Your task to perform on an android device: Open Google Chrome and click the shortcut for Amazon.com Image 0: 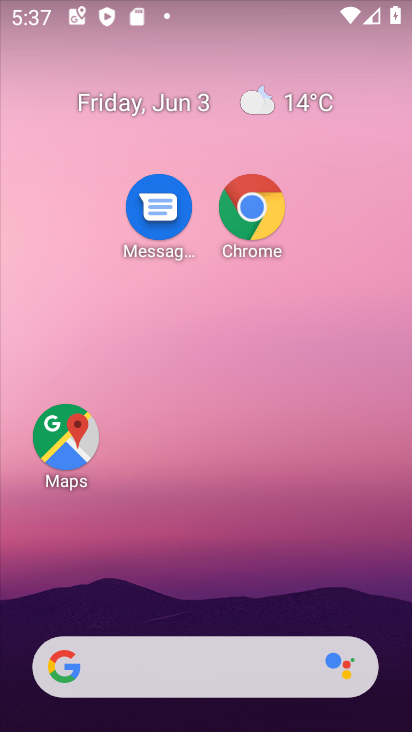
Step 0: click (253, 223)
Your task to perform on an android device: Open Google Chrome and click the shortcut for Amazon.com Image 1: 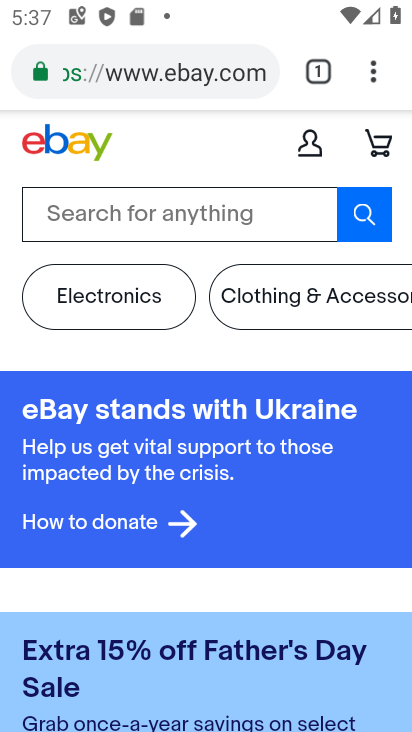
Step 1: press back button
Your task to perform on an android device: Open Google Chrome and click the shortcut for Amazon.com Image 2: 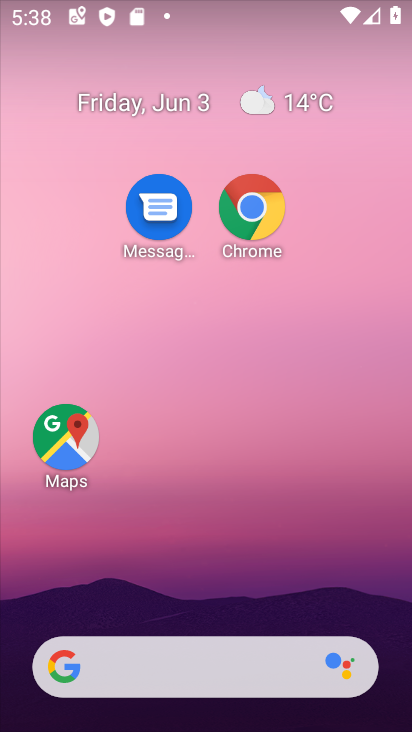
Step 2: click (255, 218)
Your task to perform on an android device: Open Google Chrome and click the shortcut for Amazon.com Image 3: 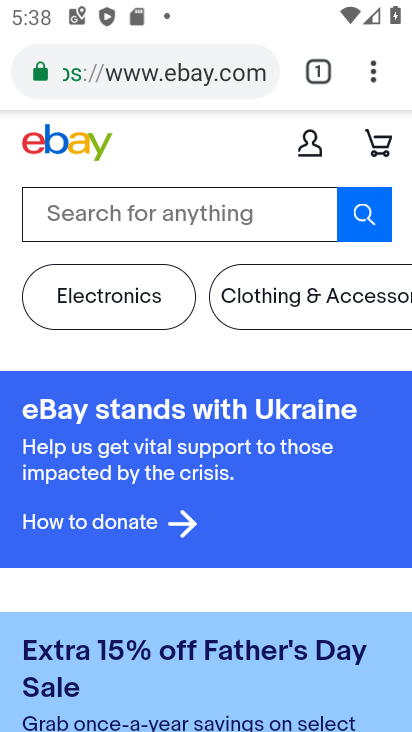
Step 3: click (327, 81)
Your task to perform on an android device: Open Google Chrome and click the shortcut for Amazon.com Image 4: 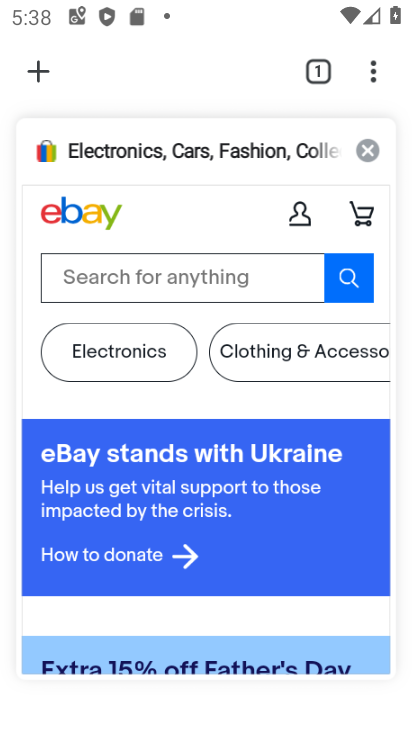
Step 4: click (38, 79)
Your task to perform on an android device: Open Google Chrome and click the shortcut for Amazon.com Image 5: 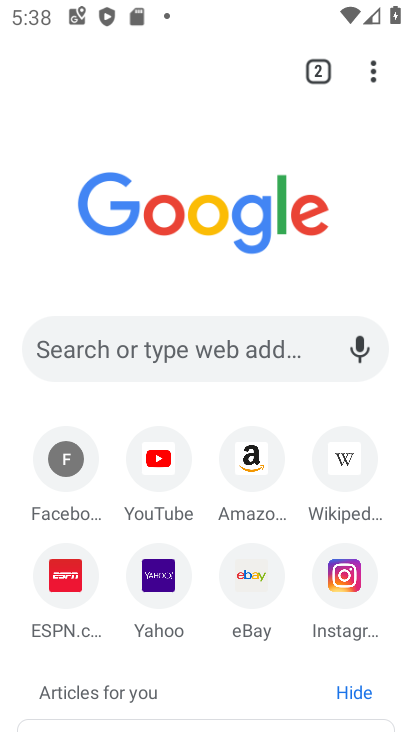
Step 5: click (238, 470)
Your task to perform on an android device: Open Google Chrome and click the shortcut for Amazon.com Image 6: 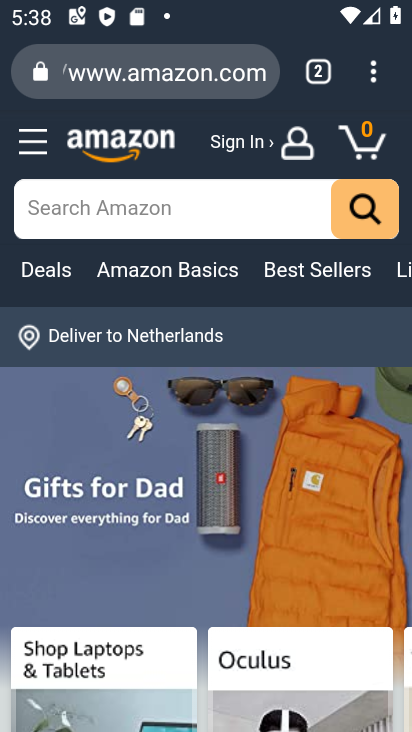
Step 6: task complete